Your task to perform on an android device: Show me popular games on the Play Store Image 0: 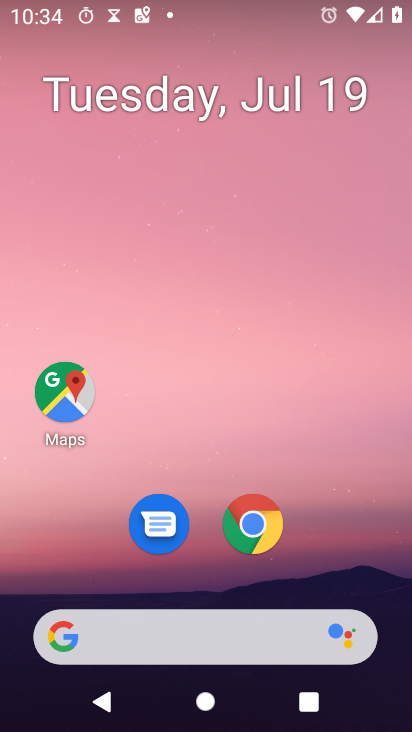
Step 0: drag from (241, 637) to (352, 43)
Your task to perform on an android device: Show me popular games on the Play Store Image 1: 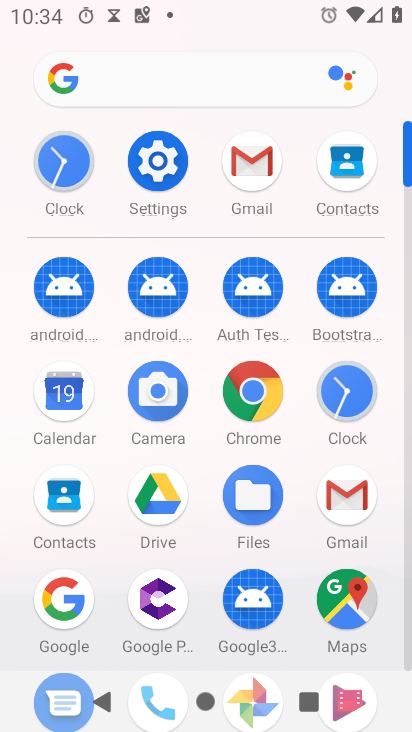
Step 1: drag from (209, 607) to (327, 145)
Your task to perform on an android device: Show me popular games on the Play Store Image 2: 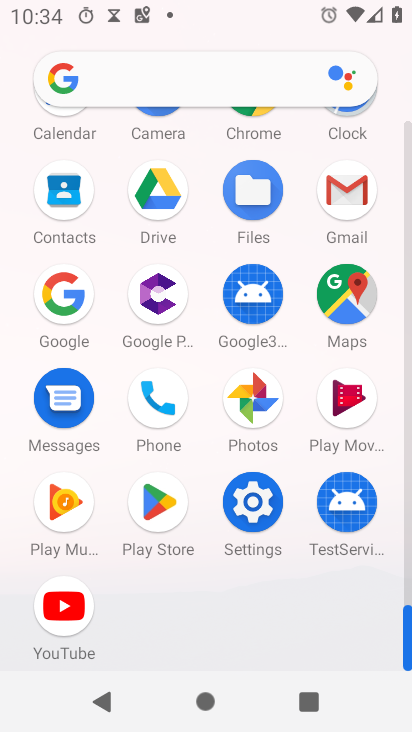
Step 2: click (151, 510)
Your task to perform on an android device: Show me popular games on the Play Store Image 3: 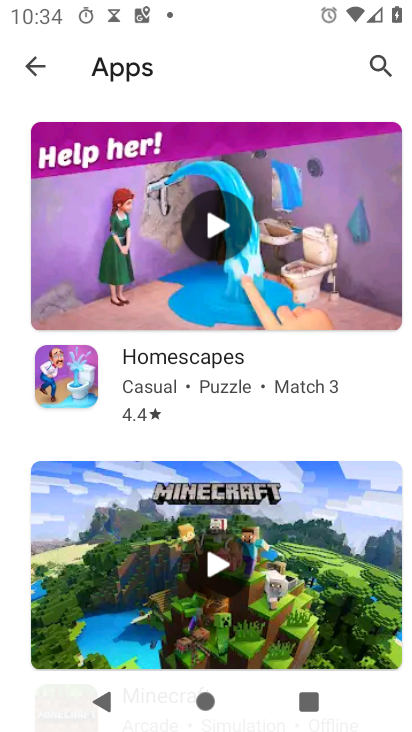
Step 3: click (32, 68)
Your task to perform on an android device: Show me popular games on the Play Store Image 4: 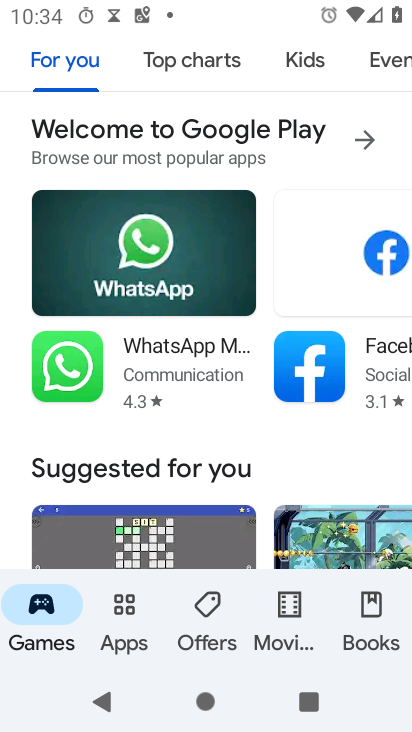
Step 4: drag from (183, 491) to (344, 33)
Your task to perform on an android device: Show me popular games on the Play Store Image 5: 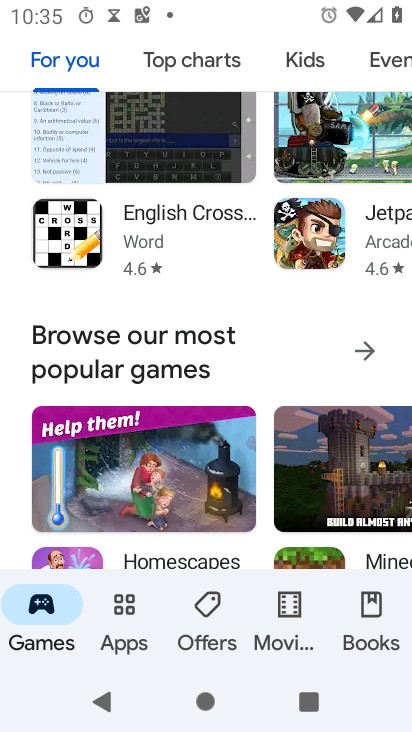
Step 5: click (365, 348)
Your task to perform on an android device: Show me popular games on the Play Store Image 6: 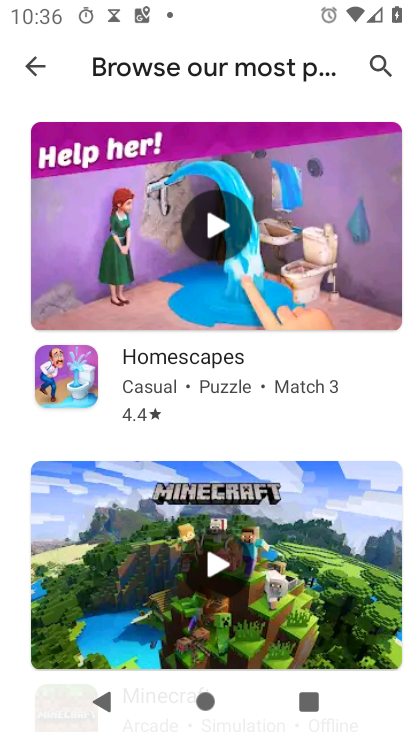
Step 6: task complete